Your task to perform on an android device: Open location settings Image 0: 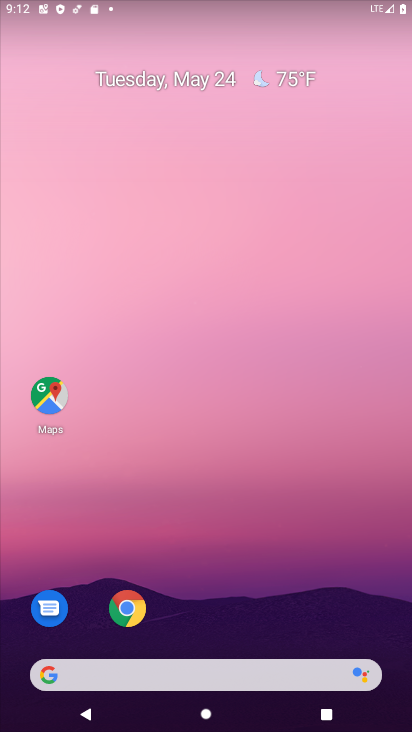
Step 0: drag from (297, 590) to (269, 32)
Your task to perform on an android device: Open location settings Image 1: 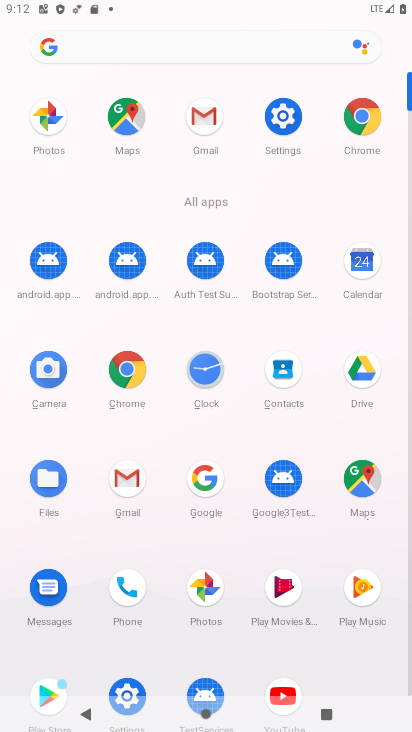
Step 1: click (283, 125)
Your task to perform on an android device: Open location settings Image 2: 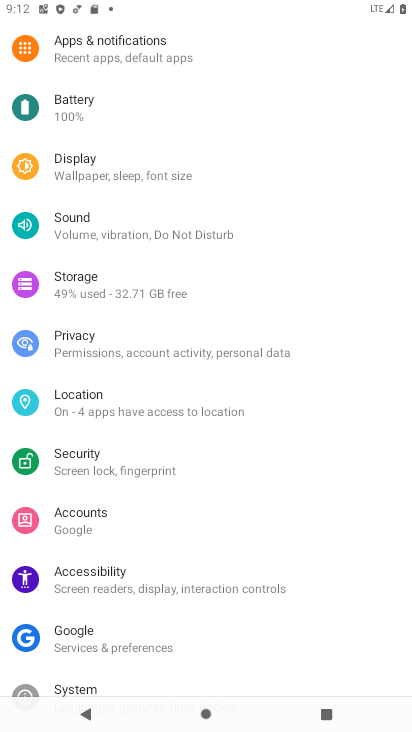
Step 2: click (160, 401)
Your task to perform on an android device: Open location settings Image 3: 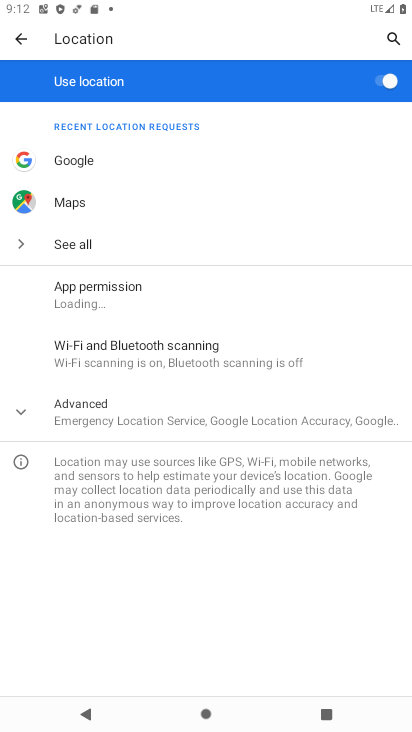
Step 3: task complete